Your task to perform on an android device: move an email to a new category in the gmail app Image 0: 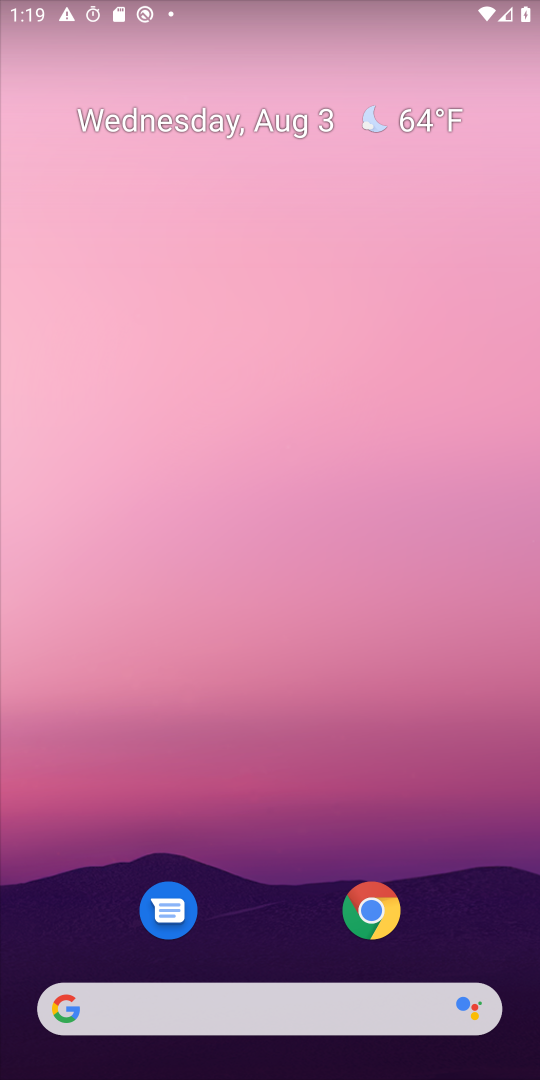
Step 0: drag from (338, 833) to (384, 187)
Your task to perform on an android device: move an email to a new category in the gmail app Image 1: 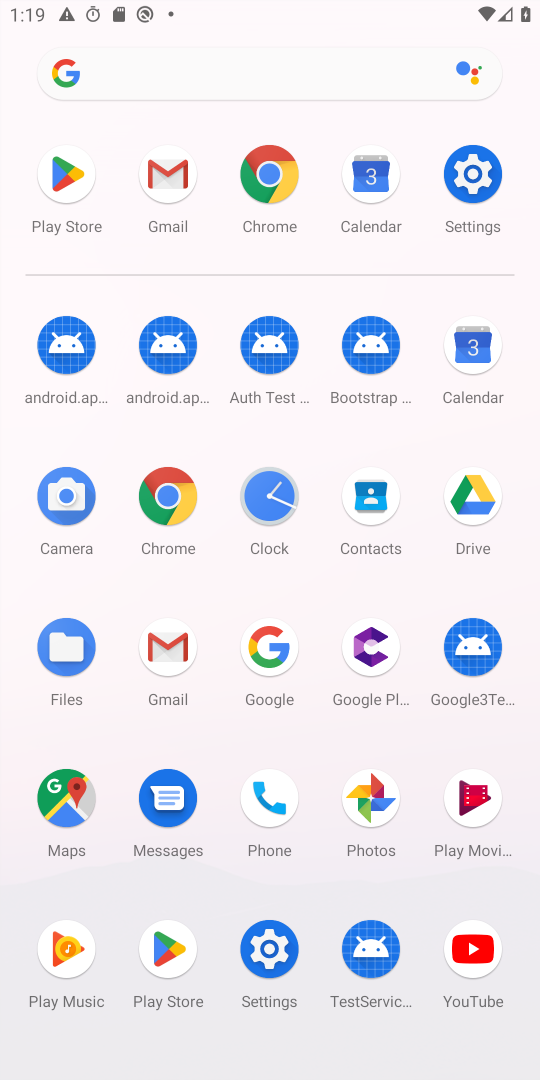
Step 1: click (180, 644)
Your task to perform on an android device: move an email to a new category in the gmail app Image 2: 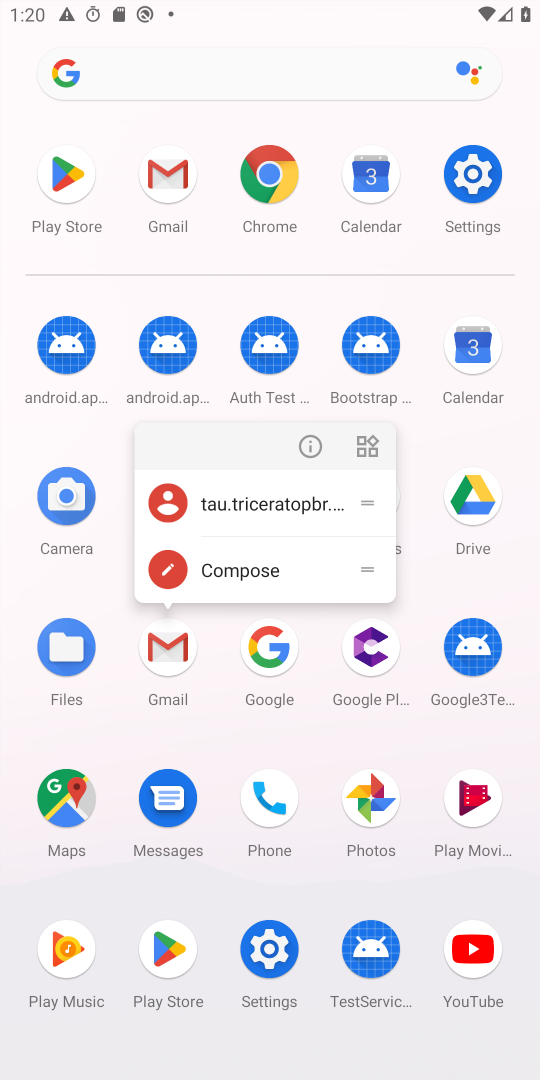
Step 2: click (165, 640)
Your task to perform on an android device: move an email to a new category in the gmail app Image 3: 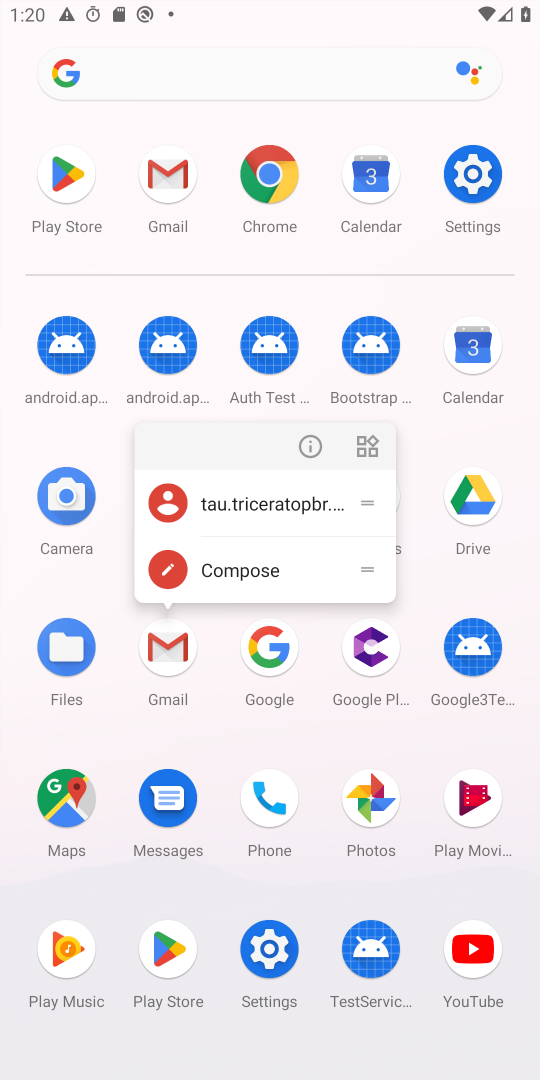
Step 3: click (165, 640)
Your task to perform on an android device: move an email to a new category in the gmail app Image 4: 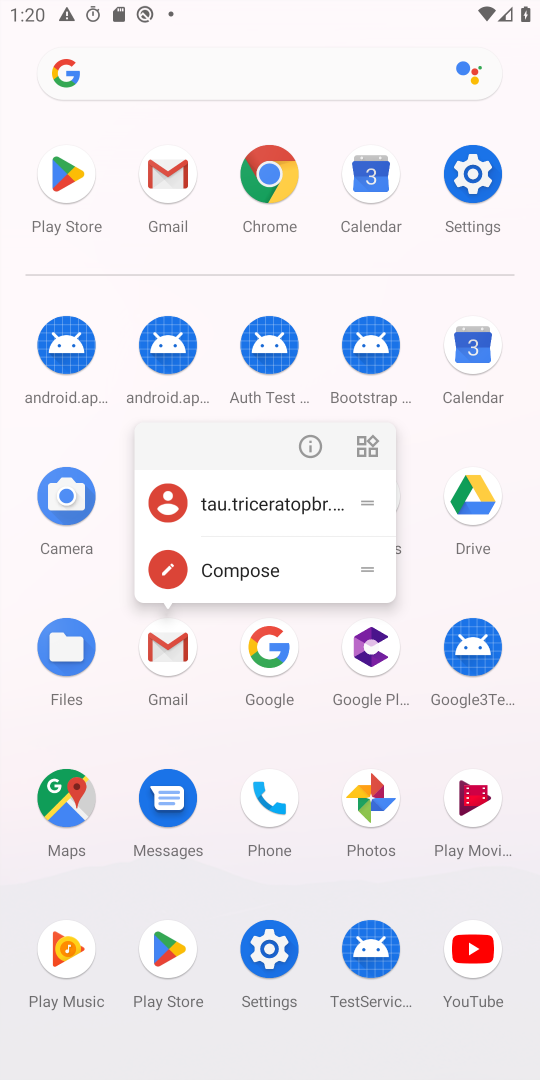
Step 4: click (165, 640)
Your task to perform on an android device: move an email to a new category in the gmail app Image 5: 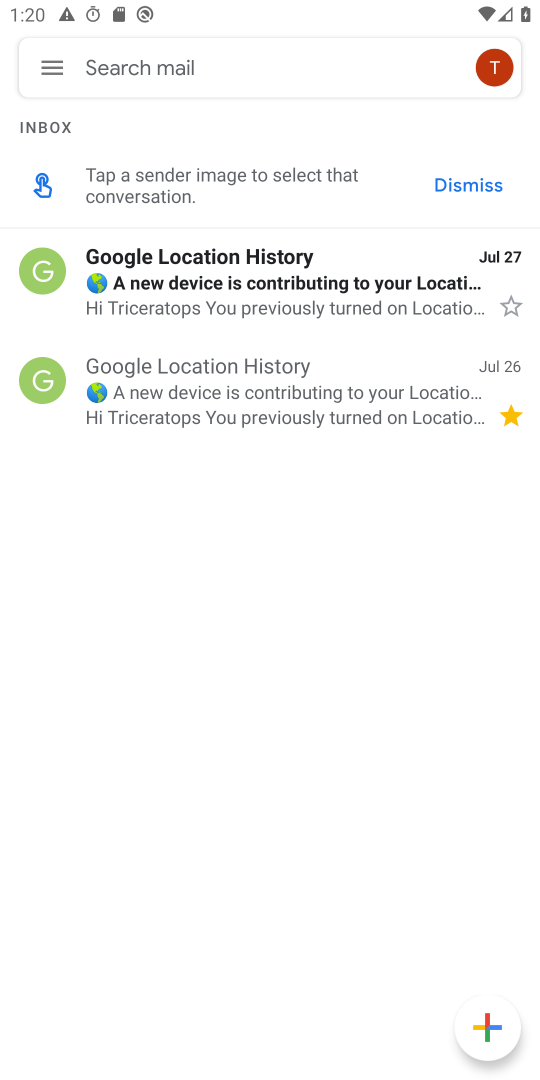
Step 5: click (376, 300)
Your task to perform on an android device: move an email to a new category in the gmail app Image 6: 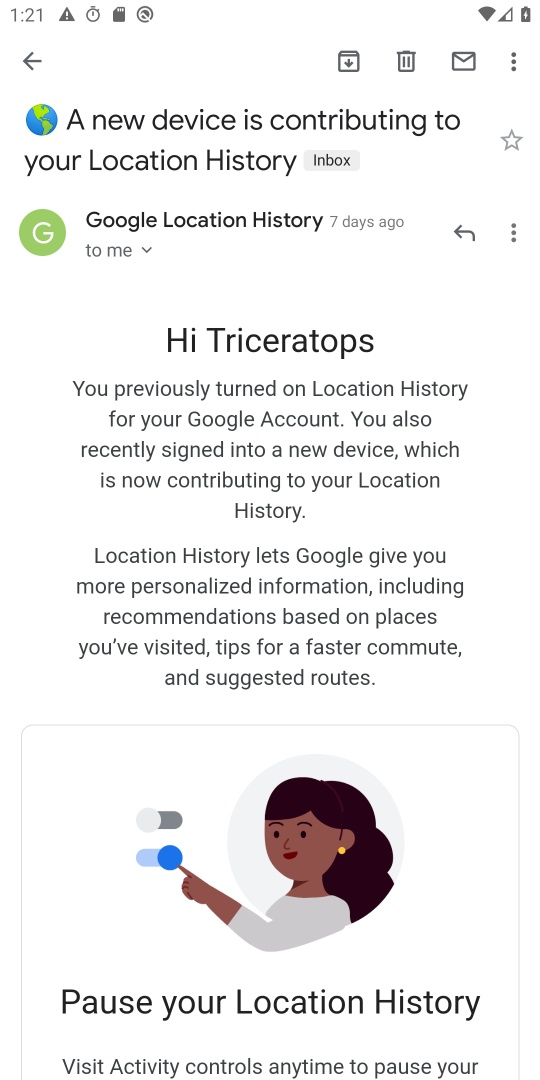
Step 6: click (518, 60)
Your task to perform on an android device: move an email to a new category in the gmail app Image 7: 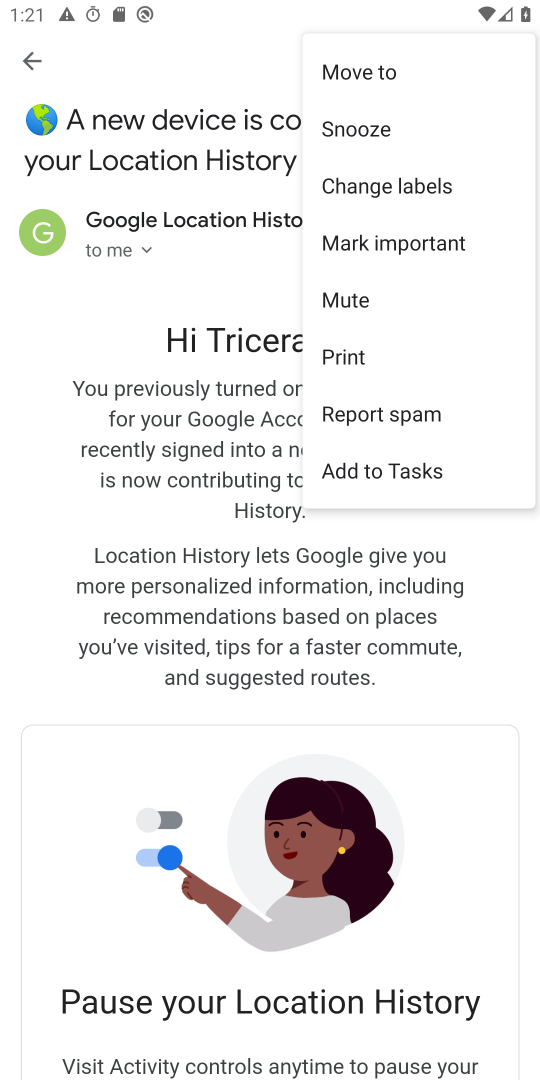
Step 7: click (397, 191)
Your task to perform on an android device: move an email to a new category in the gmail app Image 8: 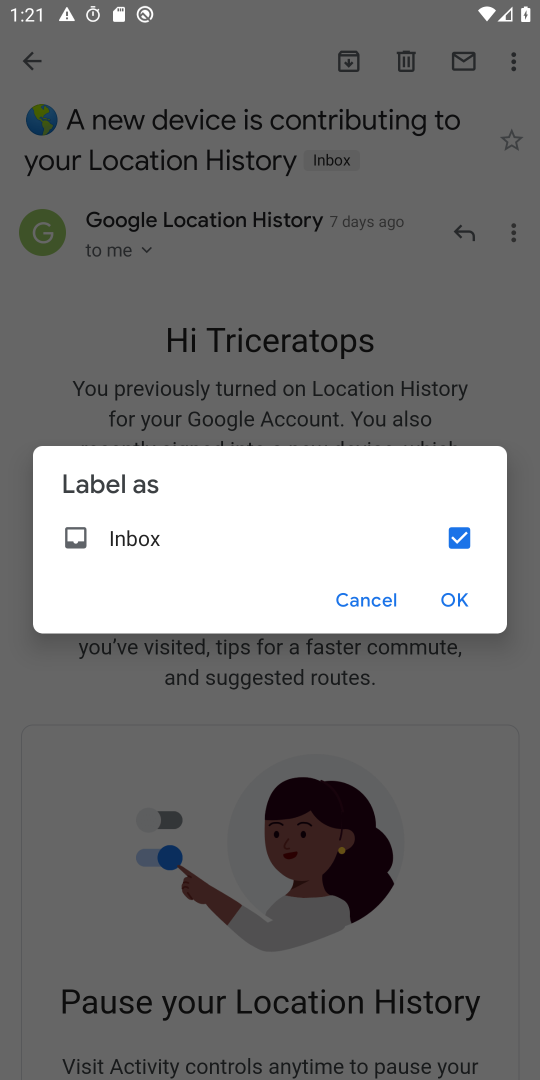
Step 8: click (457, 591)
Your task to perform on an android device: move an email to a new category in the gmail app Image 9: 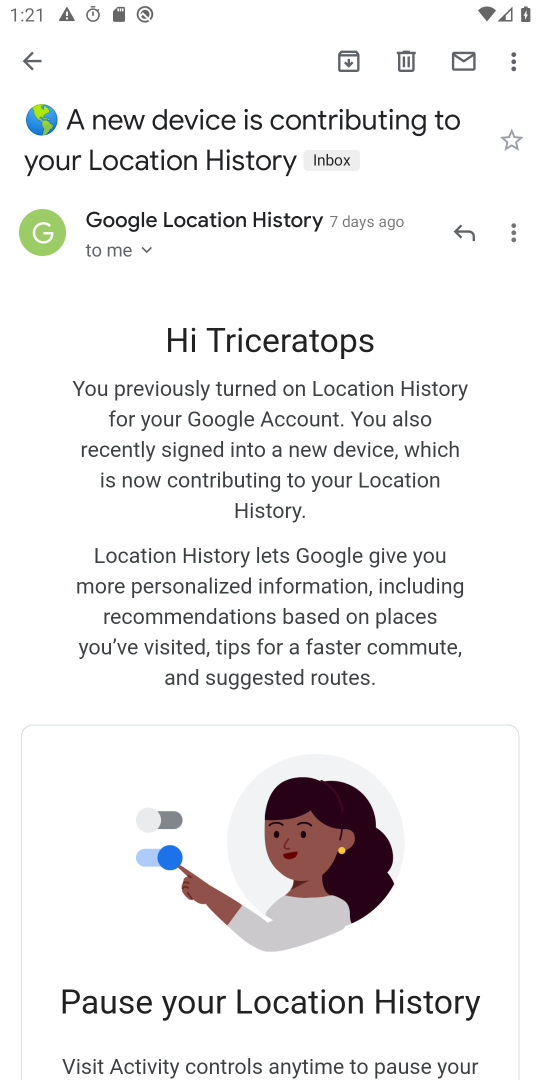
Step 9: task complete